Your task to perform on an android device: Show me productivity apps on the Play Store Image 0: 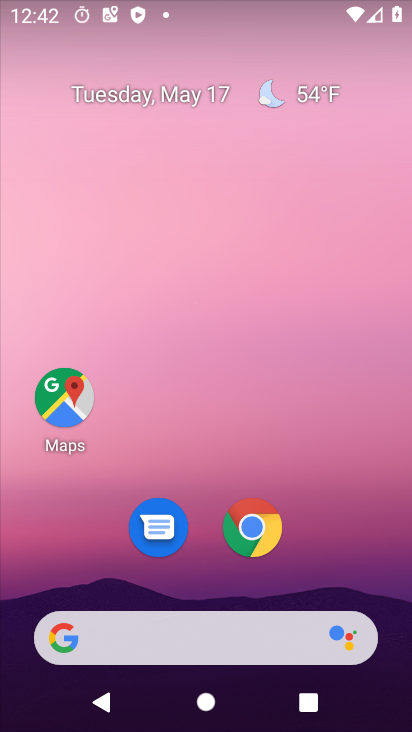
Step 0: drag from (259, 667) to (291, 307)
Your task to perform on an android device: Show me productivity apps on the Play Store Image 1: 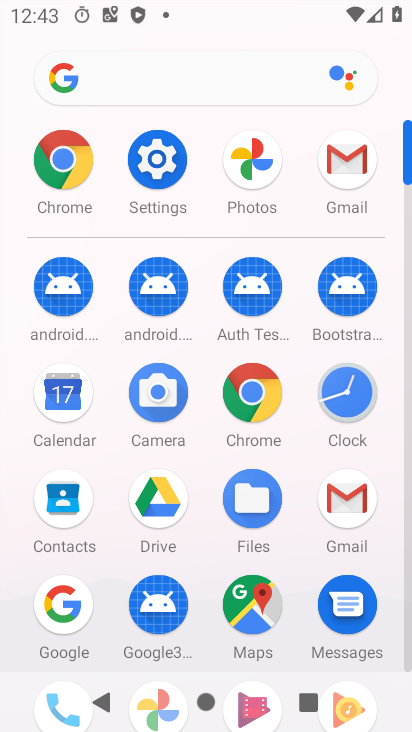
Step 1: drag from (126, 559) to (262, 297)
Your task to perform on an android device: Show me productivity apps on the Play Store Image 2: 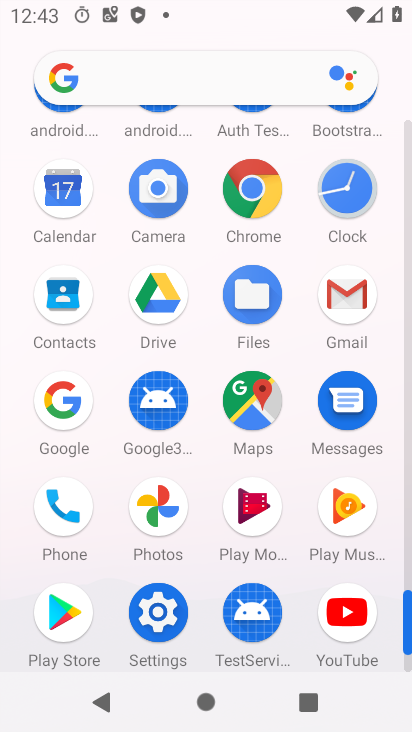
Step 2: click (63, 625)
Your task to perform on an android device: Show me productivity apps on the Play Store Image 3: 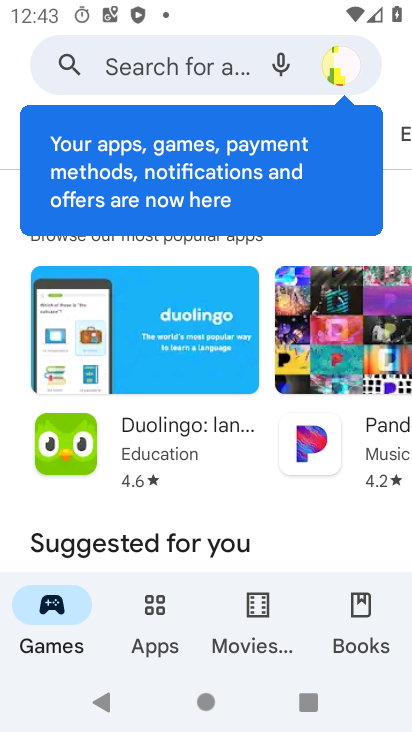
Step 3: click (174, 58)
Your task to perform on an android device: Show me productivity apps on the Play Store Image 4: 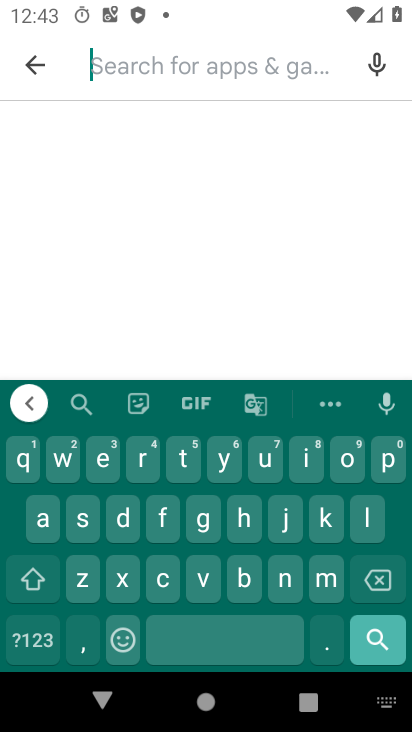
Step 4: click (385, 468)
Your task to perform on an android device: Show me productivity apps on the Play Store Image 5: 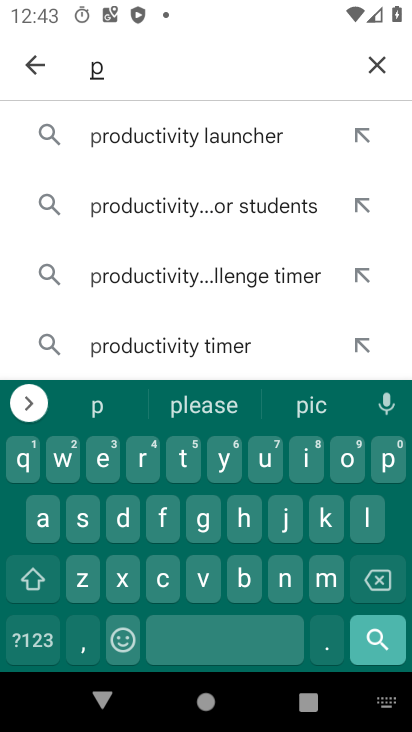
Step 5: click (136, 479)
Your task to perform on an android device: Show me productivity apps on the Play Store Image 6: 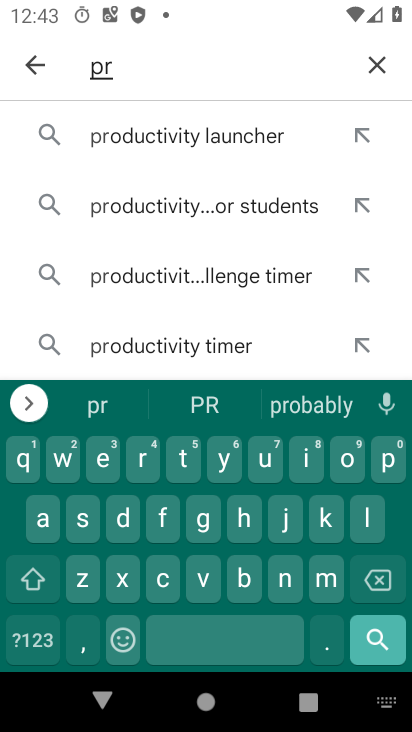
Step 6: click (347, 471)
Your task to perform on an android device: Show me productivity apps on the Play Store Image 7: 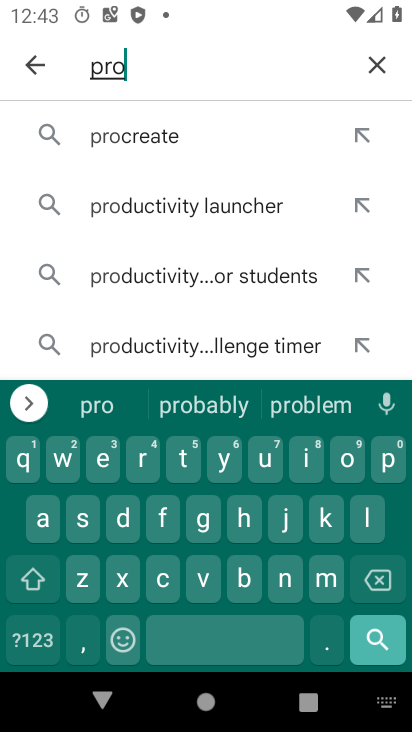
Step 7: click (121, 518)
Your task to perform on an android device: Show me productivity apps on the Play Store Image 8: 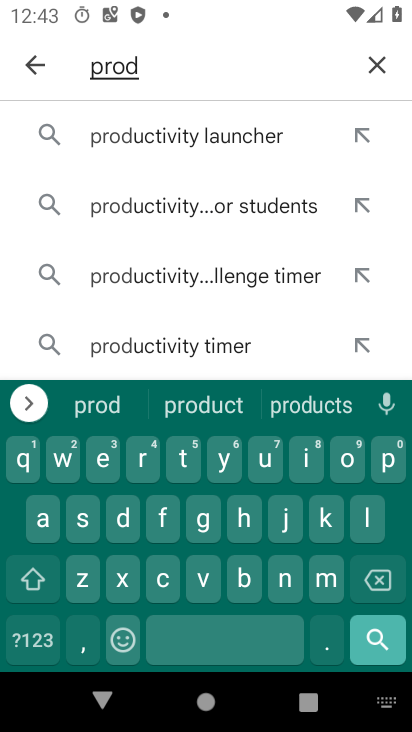
Step 8: click (272, 462)
Your task to perform on an android device: Show me productivity apps on the Play Store Image 9: 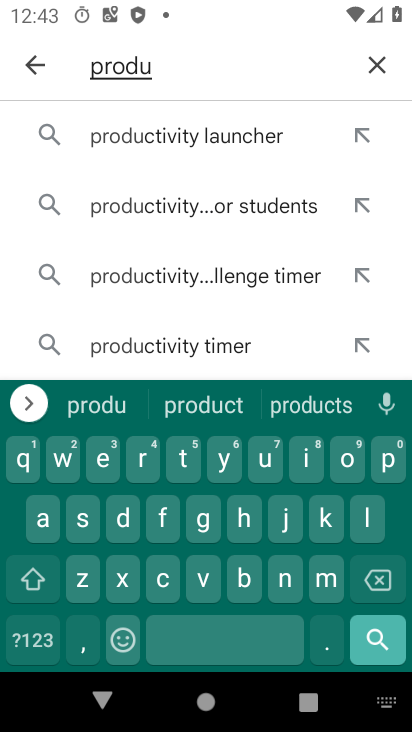
Step 9: click (161, 589)
Your task to perform on an android device: Show me productivity apps on the Play Store Image 10: 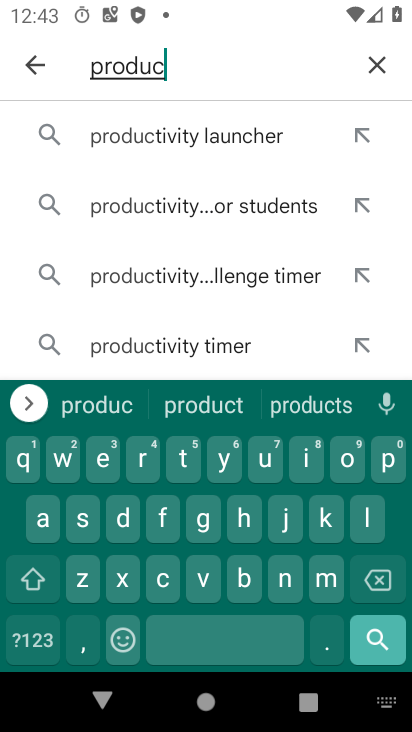
Step 10: click (180, 462)
Your task to perform on an android device: Show me productivity apps on the Play Store Image 11: 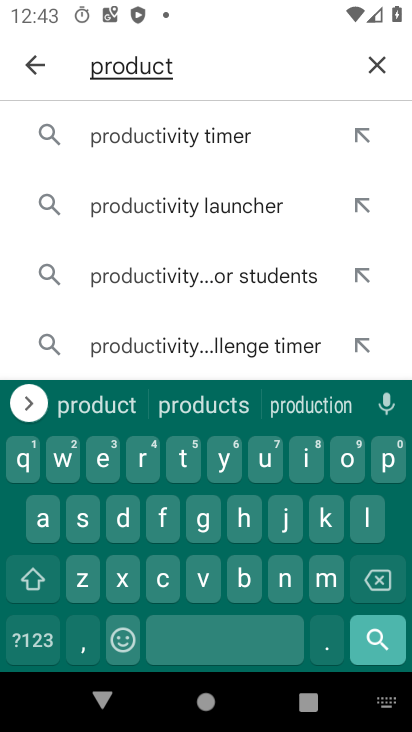
Step 11: click (304, 461)
Your task to perform on an android device: Show me productivity apps on the Play Store Image 12: 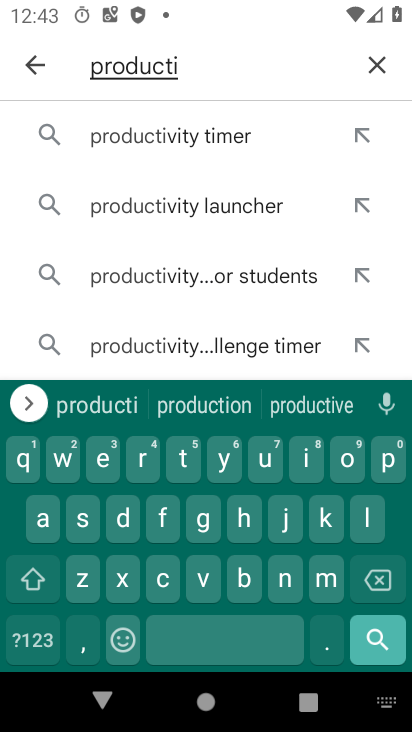
Step 12: click (196, 583)
Your task to perform on an android device: Show me productivity apps on the Play Store Image 13: 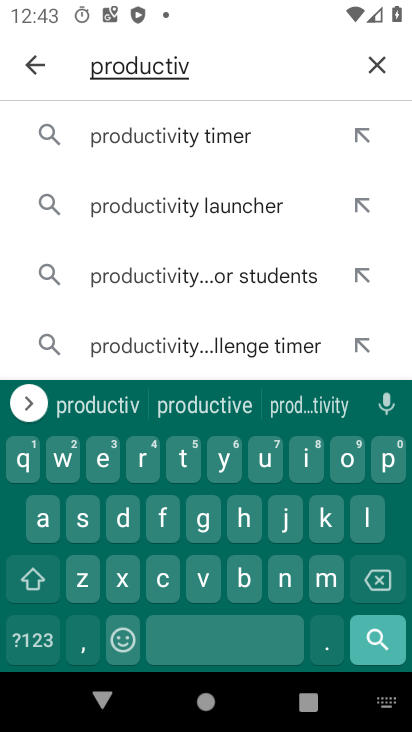
Step 13: click (330, 406)
Your task to perform on an android device: Show me productivity apps on the Play Store Image 14: 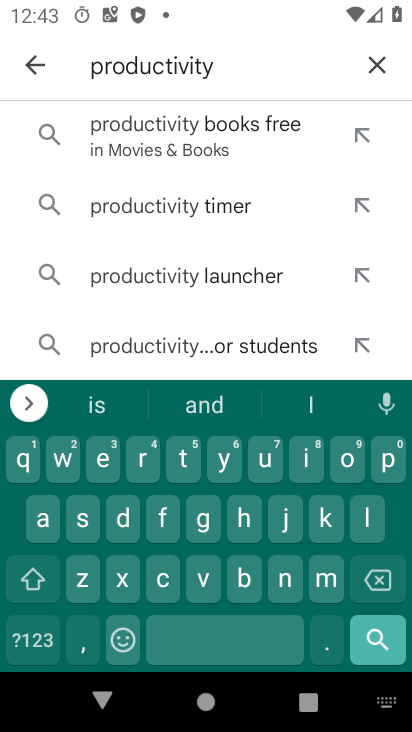
Step 14: click (34, 528)
Your task to perform on an android device: Show me productivity apps on the Play Store Image 15: 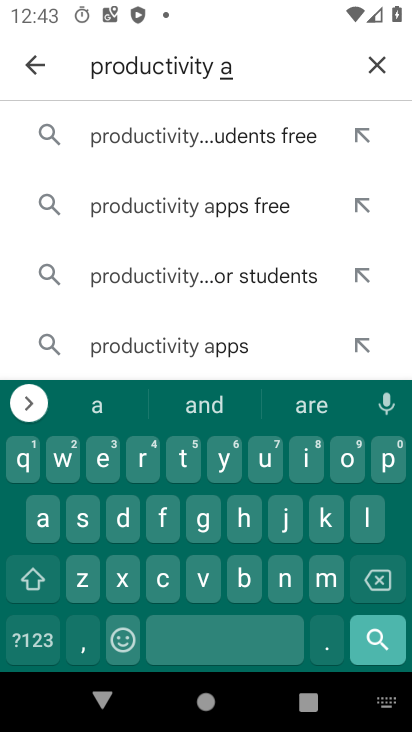
Step 15: click (378, 479)
Your task to perform on an android device: Show me productivity apps on the Play Store Image 16: 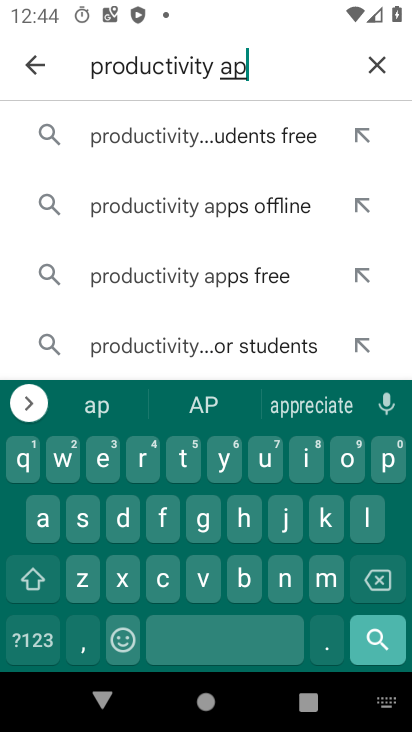
Step 16: click (382, 471)
Your task to perform on an android device: Show me productivity apps on the Play Store Image 17: 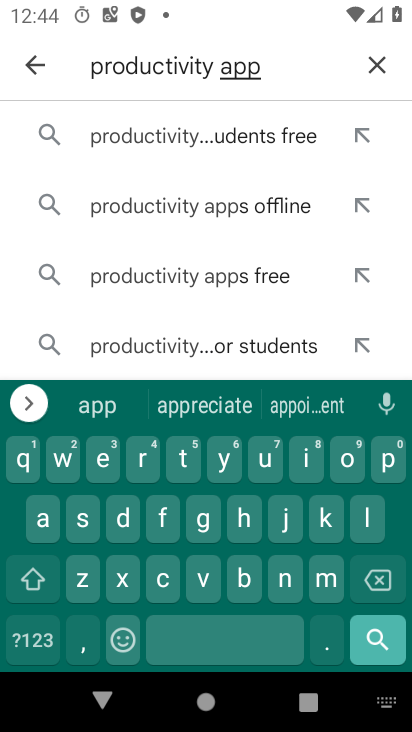
Step 17: click (80, 522)
Your task to perform on an android device: Show me productivity apps on the Play Store Image 18: 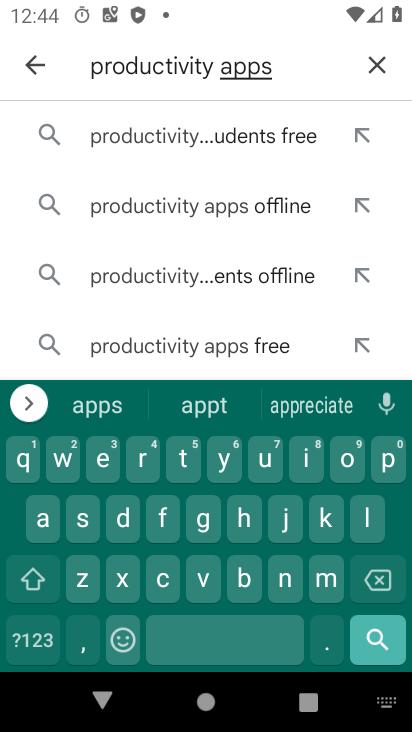
Step 18: click (372, 647)
Your task to perform on an android device: Show me productivity apps on the Play Store Image 19: 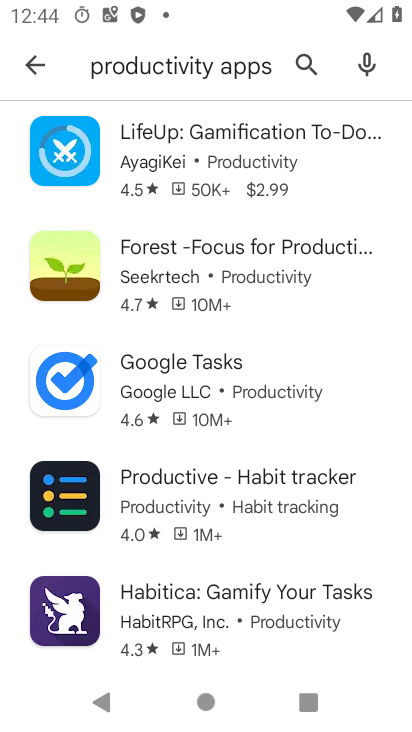
Step 19: task complete